Your task to perform on an android device: Turn on the flashlight Image 0: 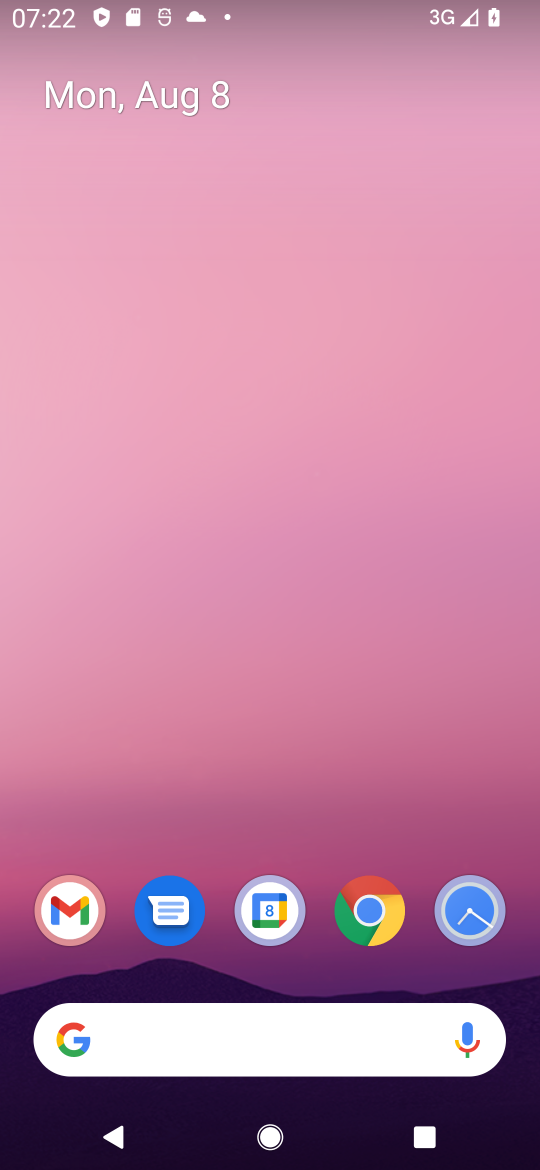
Step 0: drag from (239, 1052) to (300, 305)
Your task to perform on an android device: Turn on the flashlight Image 1: 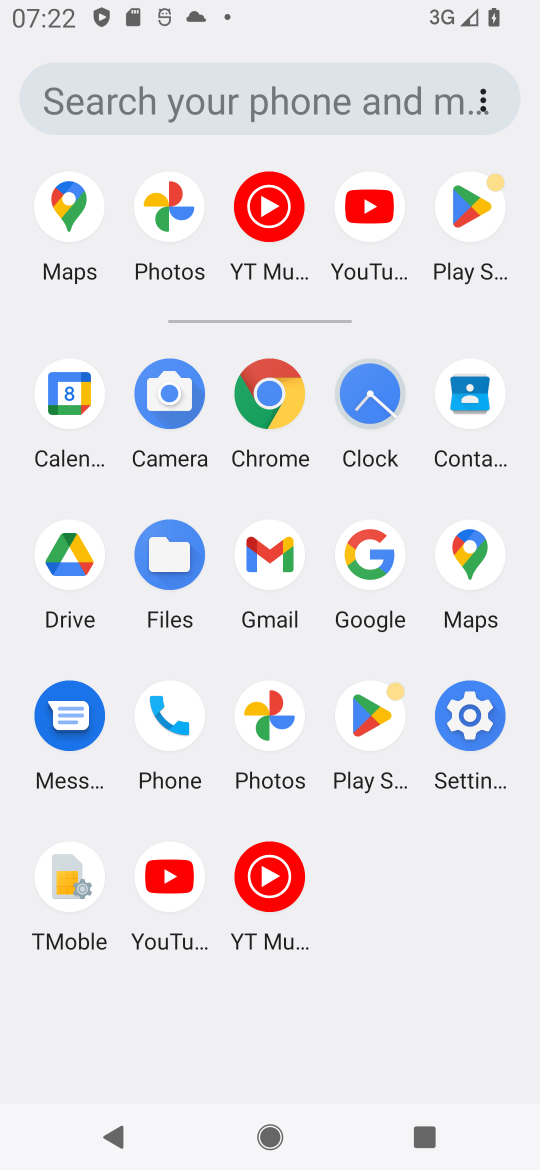
Step 1: click (471, 716)
Your task to perform on an android device: Turn on the flashlight Image 2: 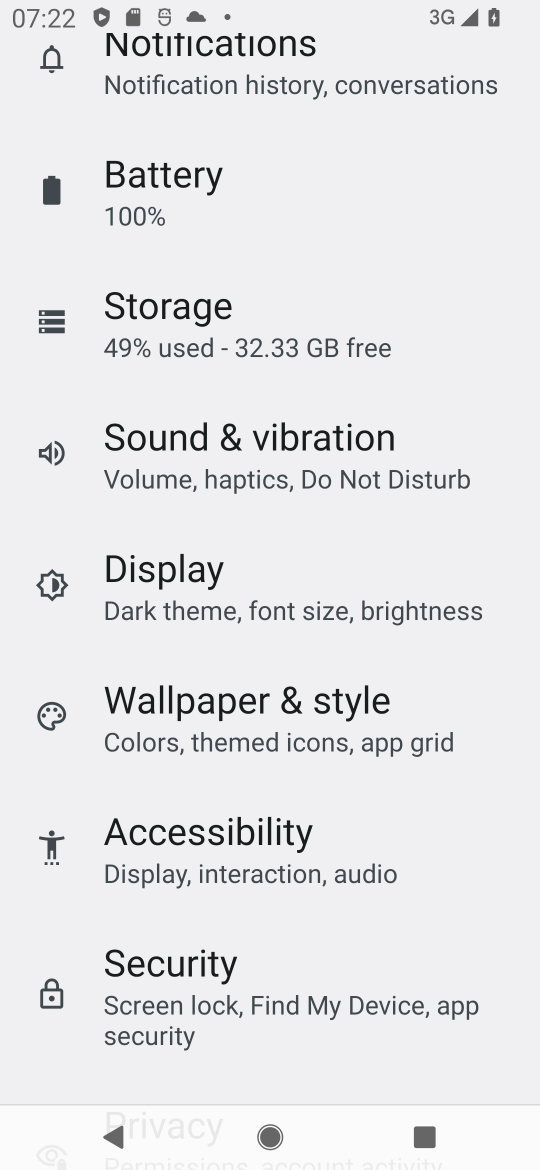
Step 2: drag from (236, 235) to (235, 460)
Your task to perform on an android device: Turn on the flashlight Image 3: 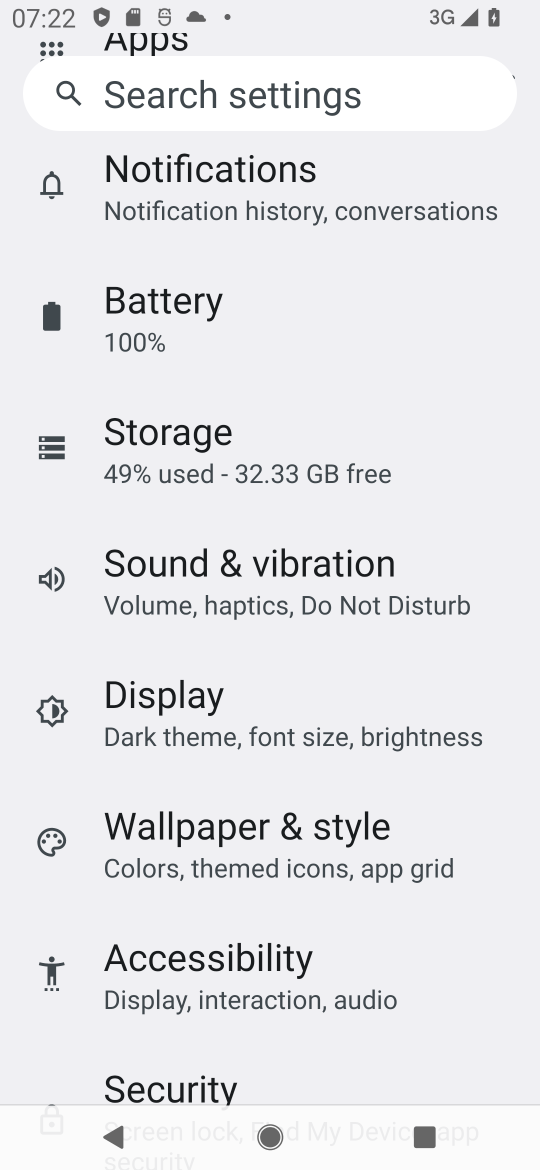
Step 3: drag from (312, 165) to (421, 510)
Your task to perform on an android device: Turn on the flashlight Image 4: 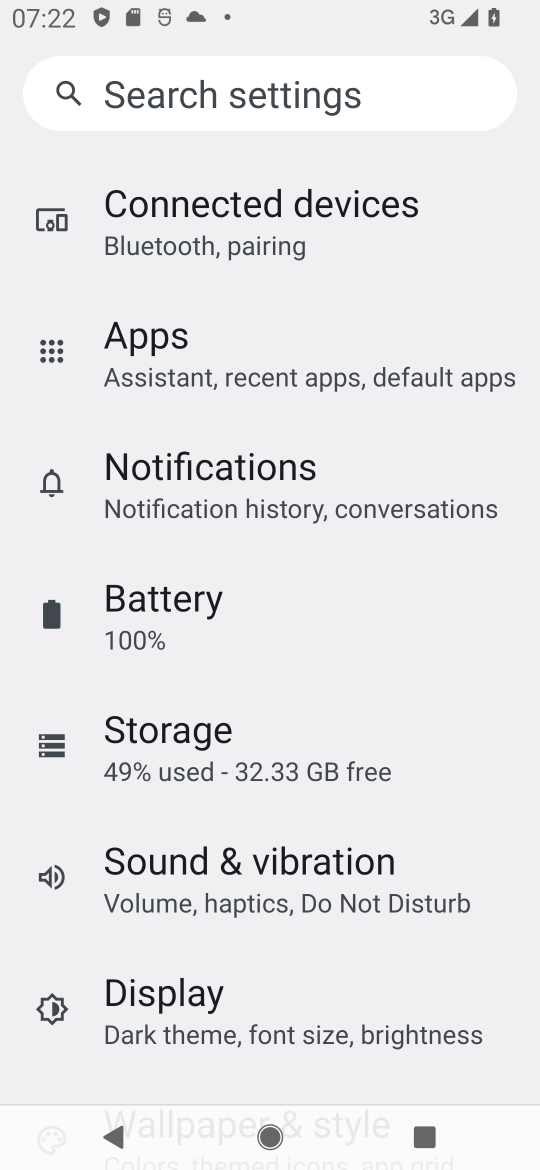
Step 4: drag from (353, 189) to (415, 526)
Your task to perform on an android device: Turn on the flashlight Image 5: 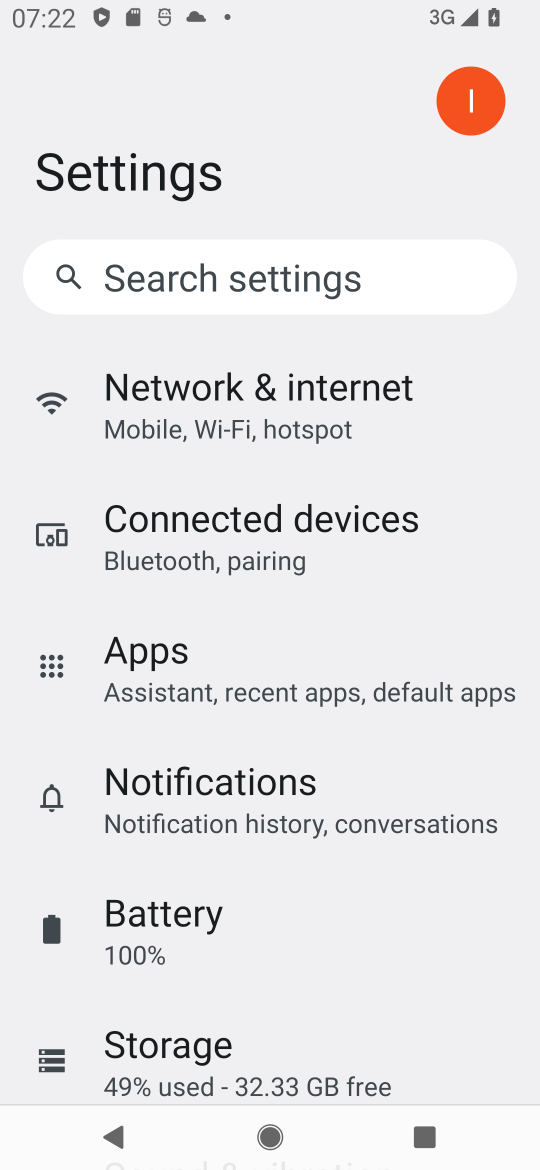
Step 5: drag from (382, 575) to (415, 510)
Your task to perform on an android device: Turn on the flashlight Image 6: 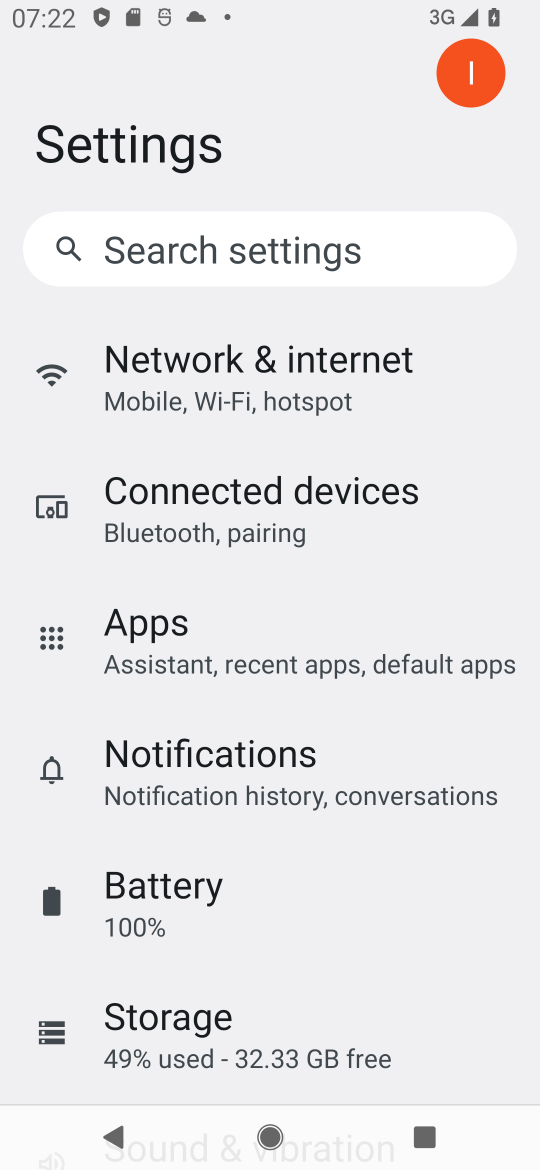
Step 6: drag from (277, 844) to (330, 575)
Your task to perform on an android device: Turn on the flashlight Image 7: 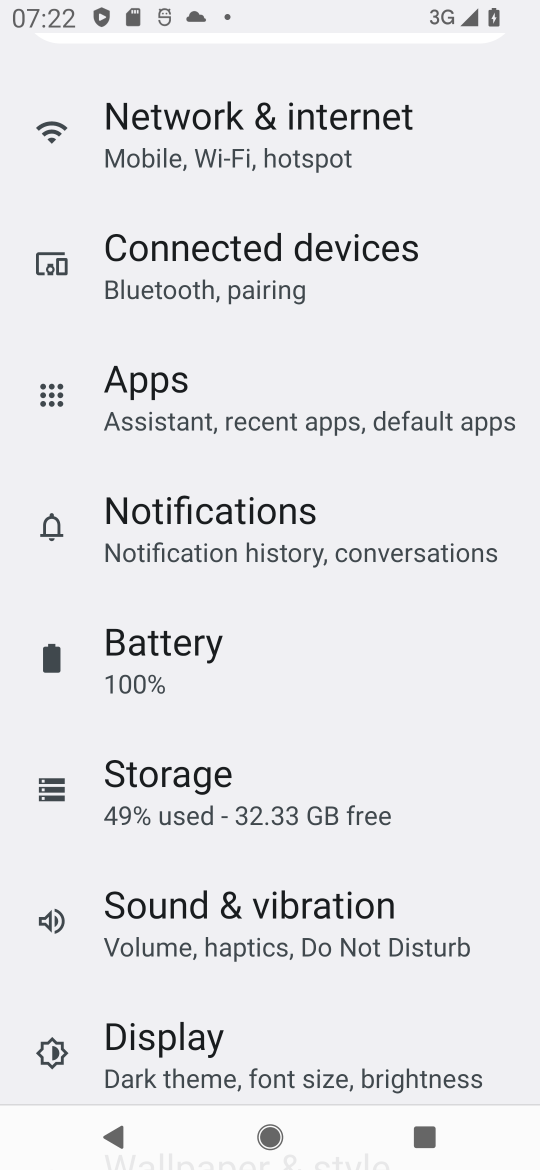
Step 7: drag from (257, 833) to (349, 648)
Your task to perform on an android device: Turn on the flashlight Image 8: 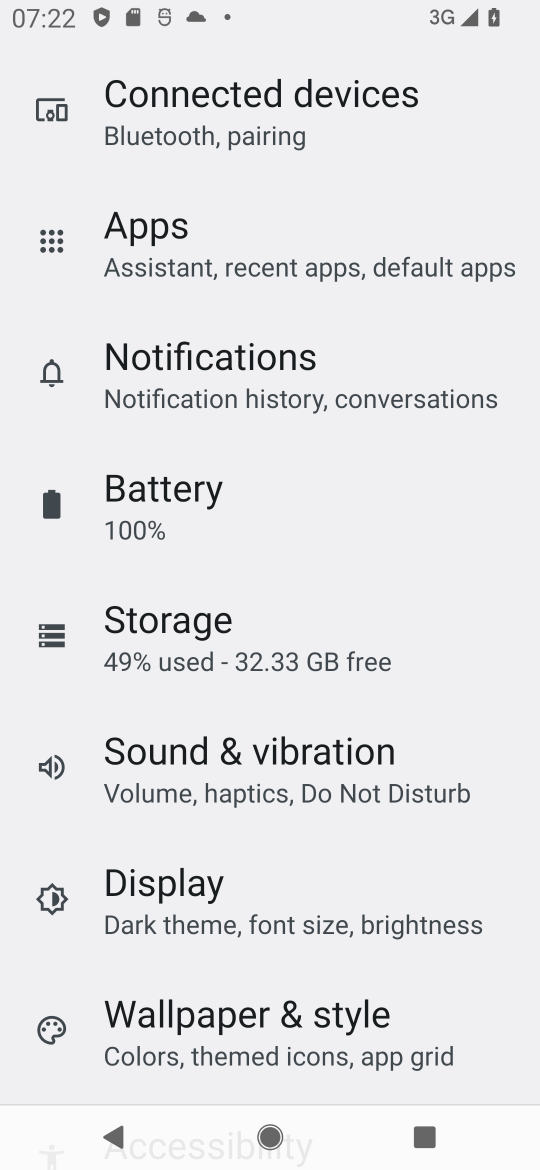
Step 8: click (134, 895)
Your task to perform on an android device: Turn on the flashlight Image 9: 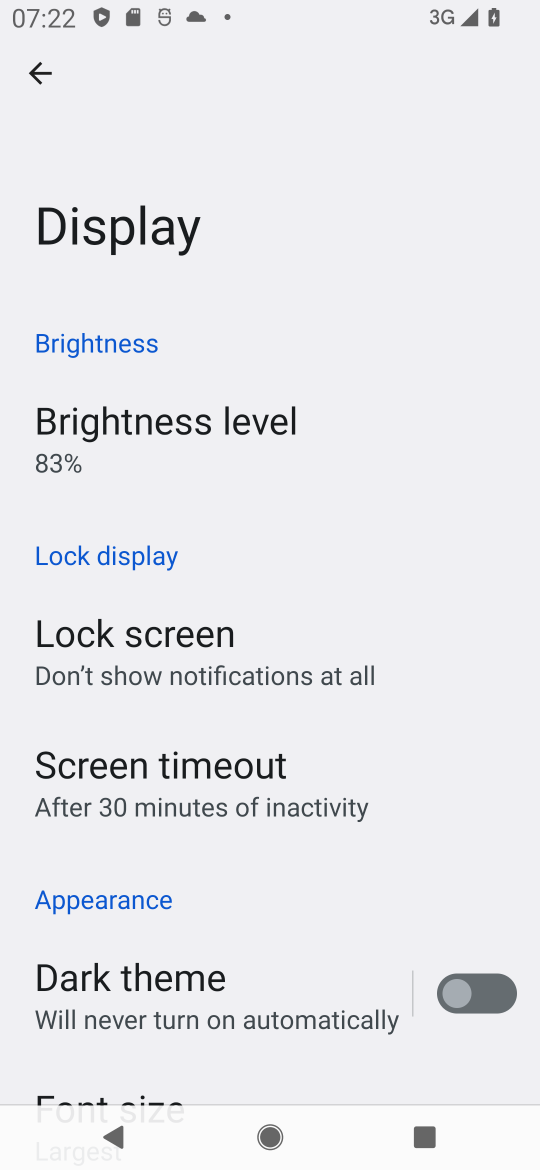
Step 9: click (179, 428)
Your task to perform on an android device: Turn on the flashlight Image 10: 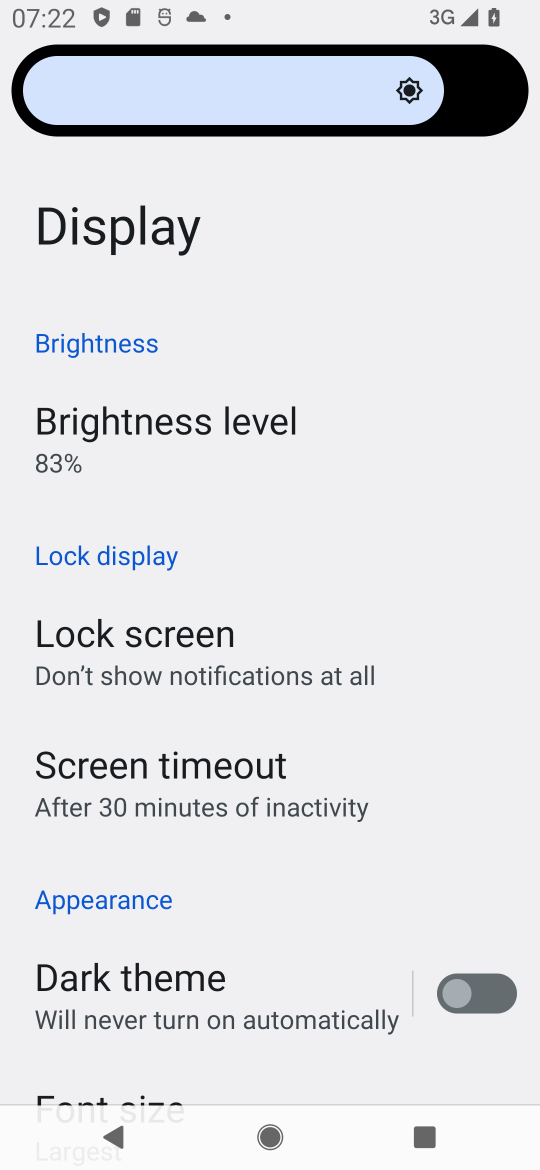
Step 10: click (133, 638)
Your task to perform on an android device: Turn on the flashlight Image 11: 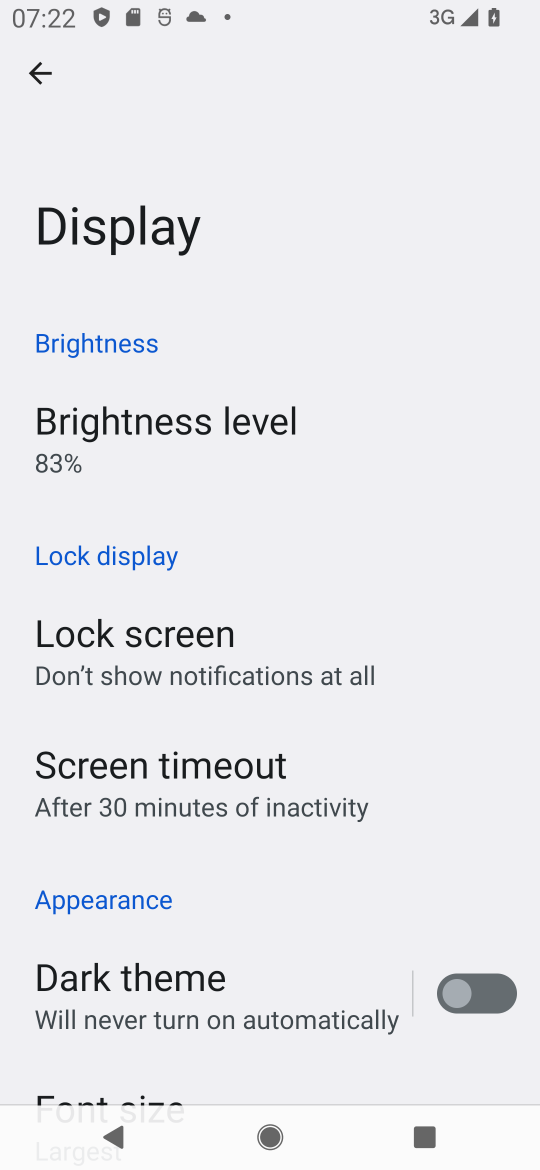
Step 11: drag from (150, 865) to (410, 461)
Your task to perform on an android device: Turn on the flashlight Image 12: 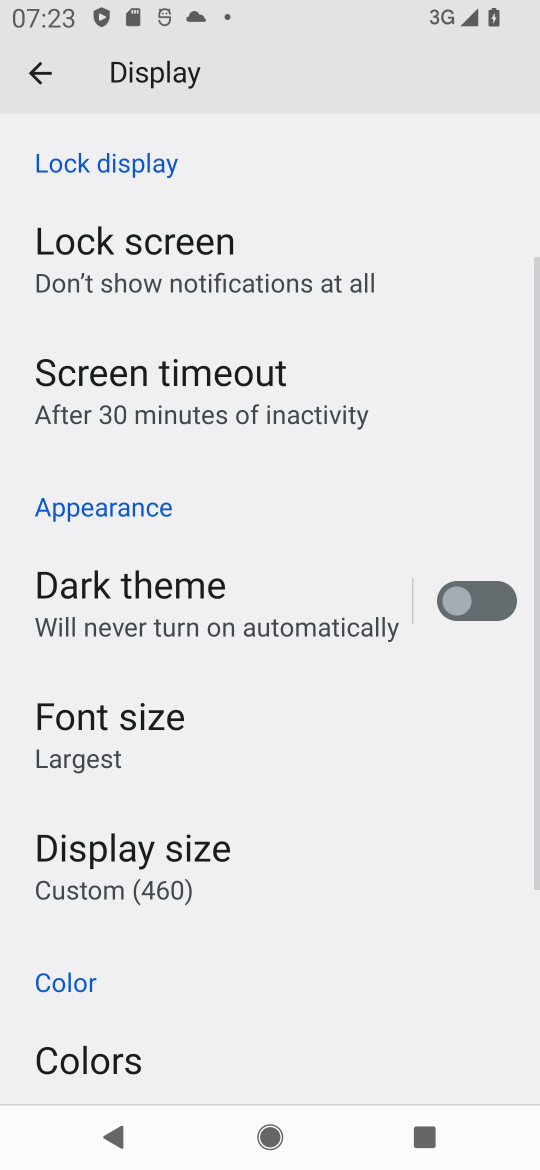
Step 12: drag from (275, 933) to (340, 630)
Your task to perform on an android device: Turn on the flashlight Image 13: 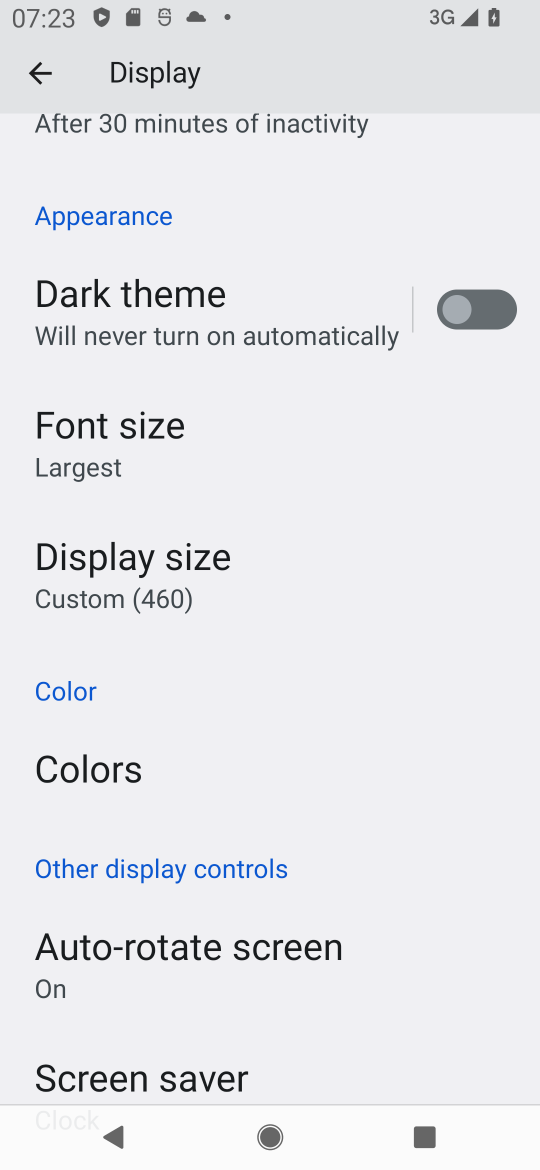
Step 13: drag from (283, 955) to (344, 775)
Your task to perform on an android device: Turn on the flashlight Image 14: 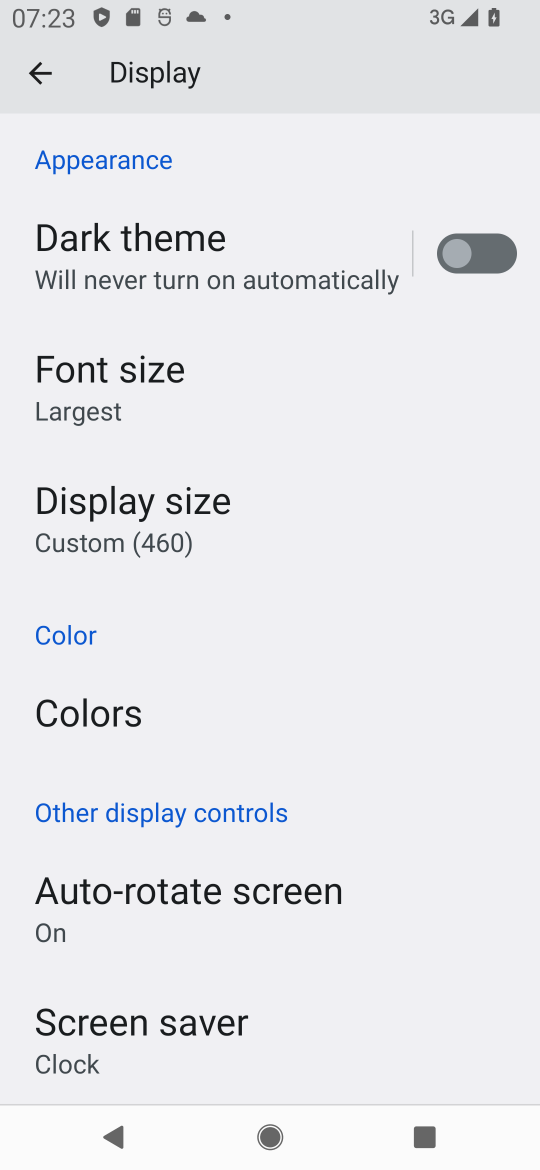
Step 14: click (113, 724)
Your task to perform on an android device: Turn on the flashlight Image 15: 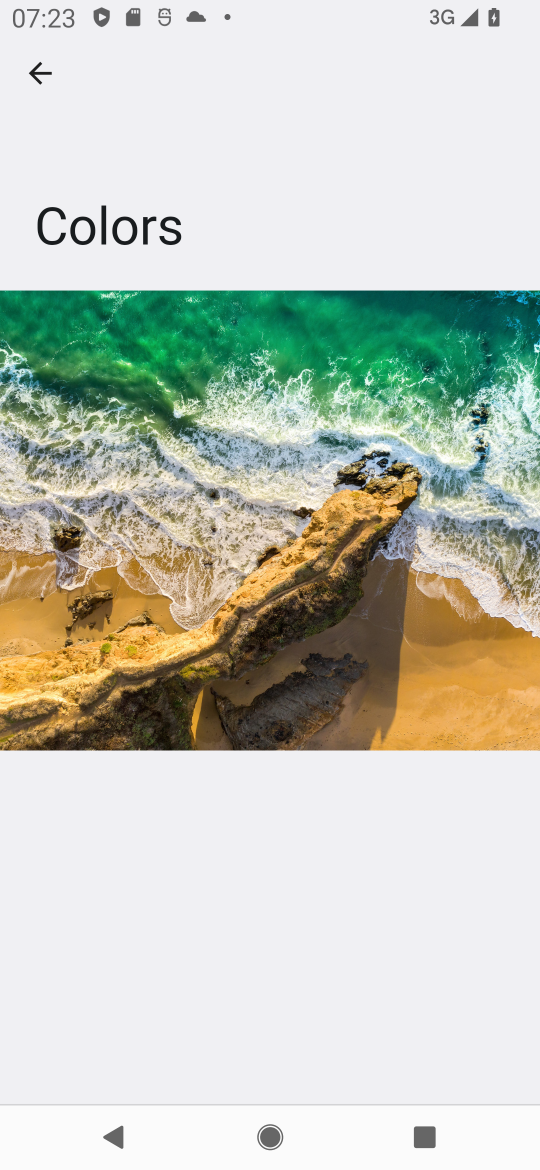
Step 15: press back button
Your task to perform on an android device: Turn on the flashlight Image 16: 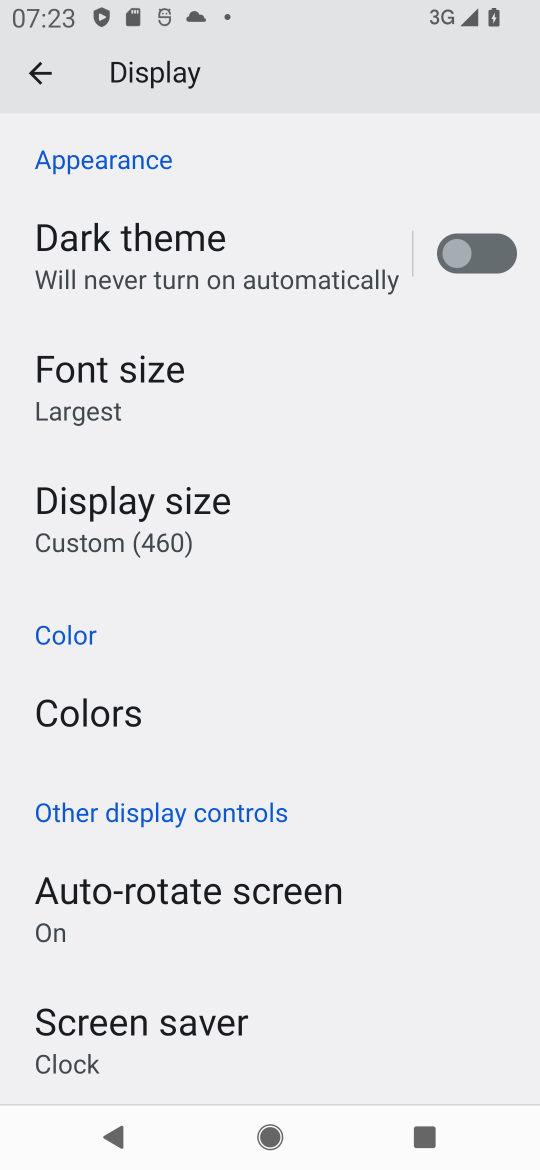
Step 16: click (191, 1033)
Your task to perform on an android device: Turn on the flashlight Image 17: 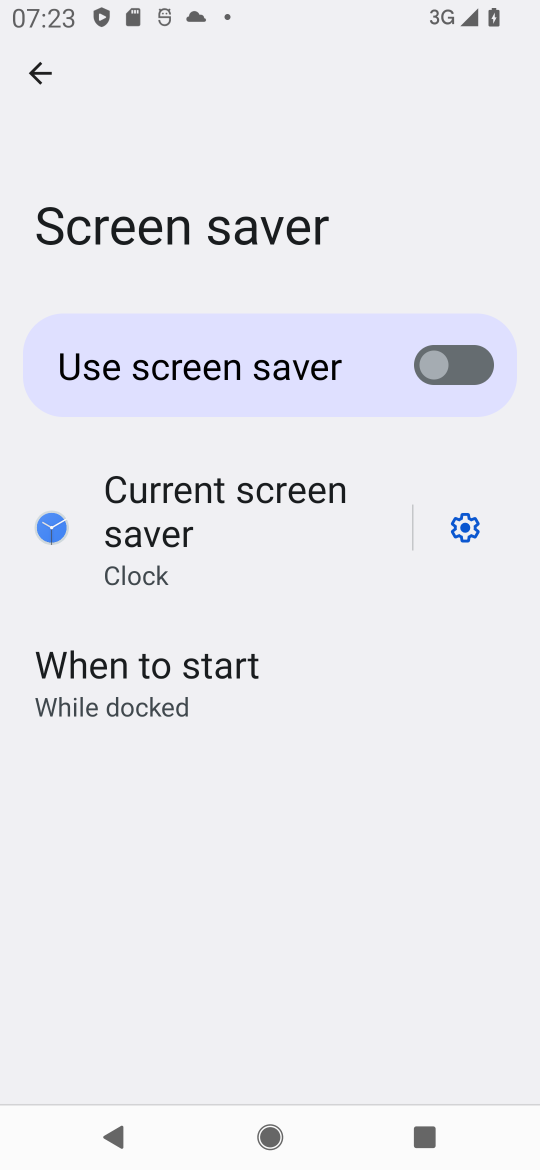
Step 17: click (185, 696)
Your task to perform on an android device: Turn on the flashlight Image 18: 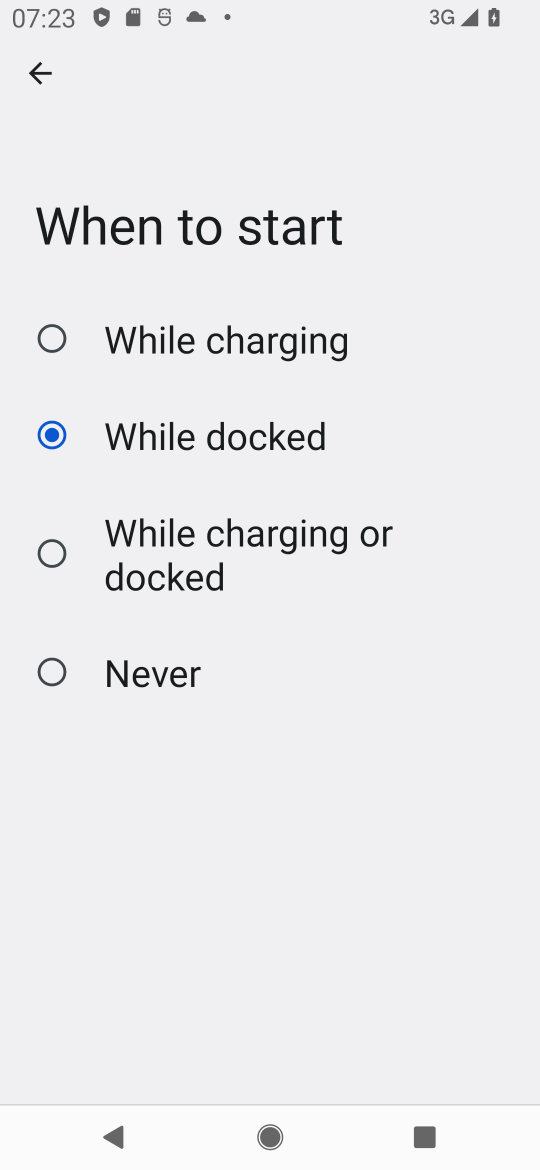
Step 18: press back button
Your task to perform on an android device: Turn on the flashlight Image 19: 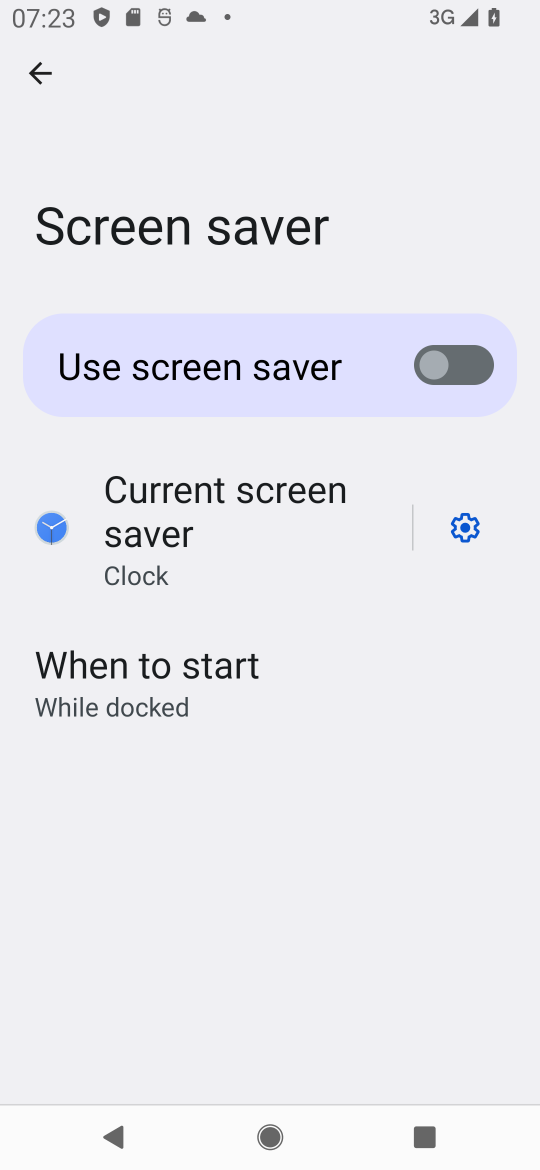
Step 19: click (38, 86)
Your task to perform on an android device: Turn on the flashlight Image 20: 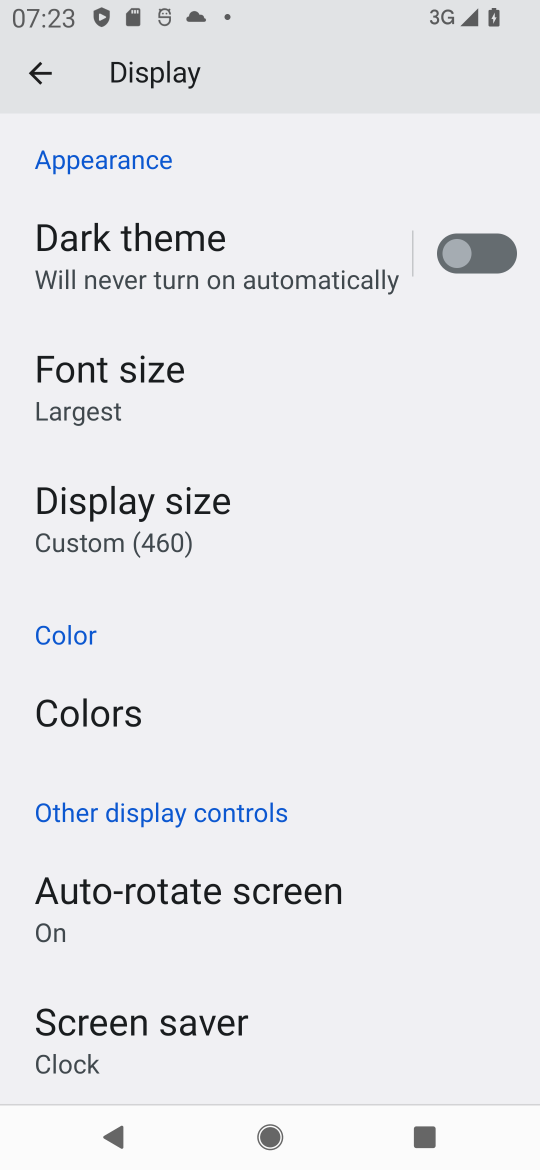
Step 20: press back button
Your task to perform on an android device: Turn on the flashlight Image 21: 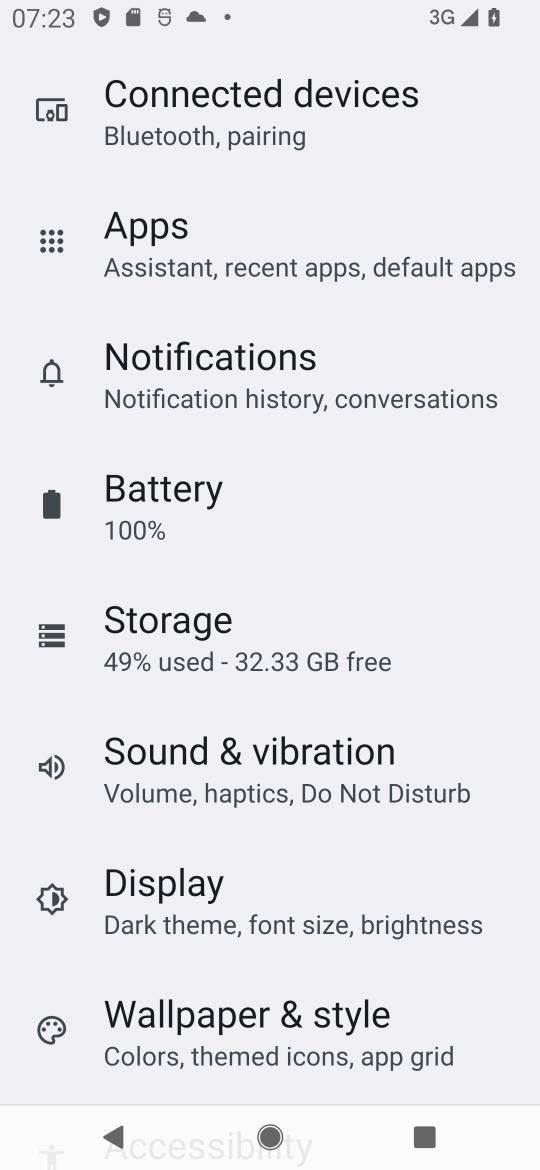
Step 21: drag from (310, 179) to (404, 779)
Your task to perform on an android device: Turn on the flashlight Image 22: 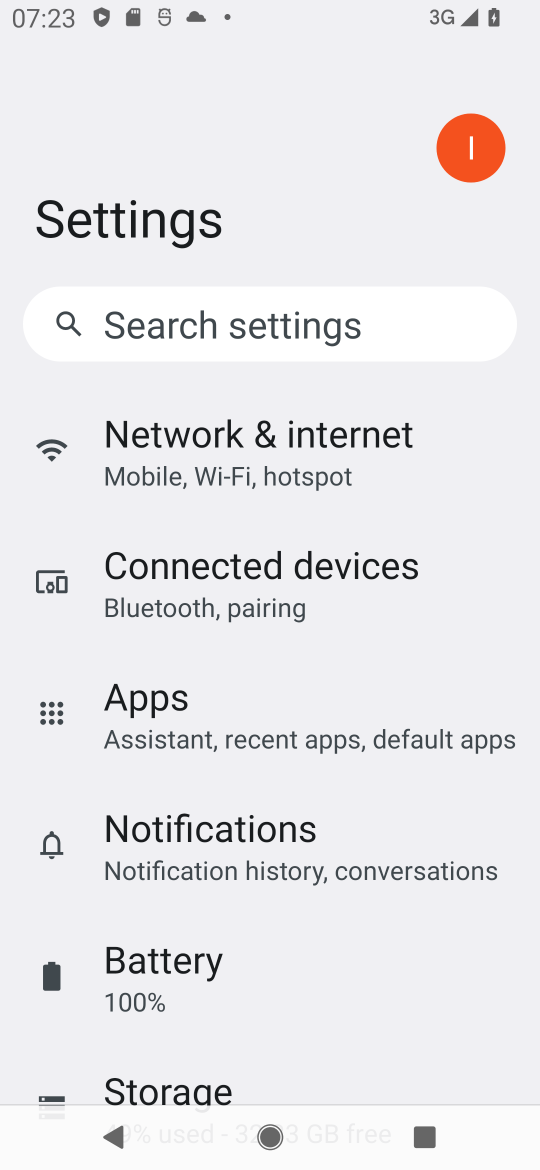
Step 22: click (280, 322)
Your task to perform on an android device: Turn on the flashlight Image 23: 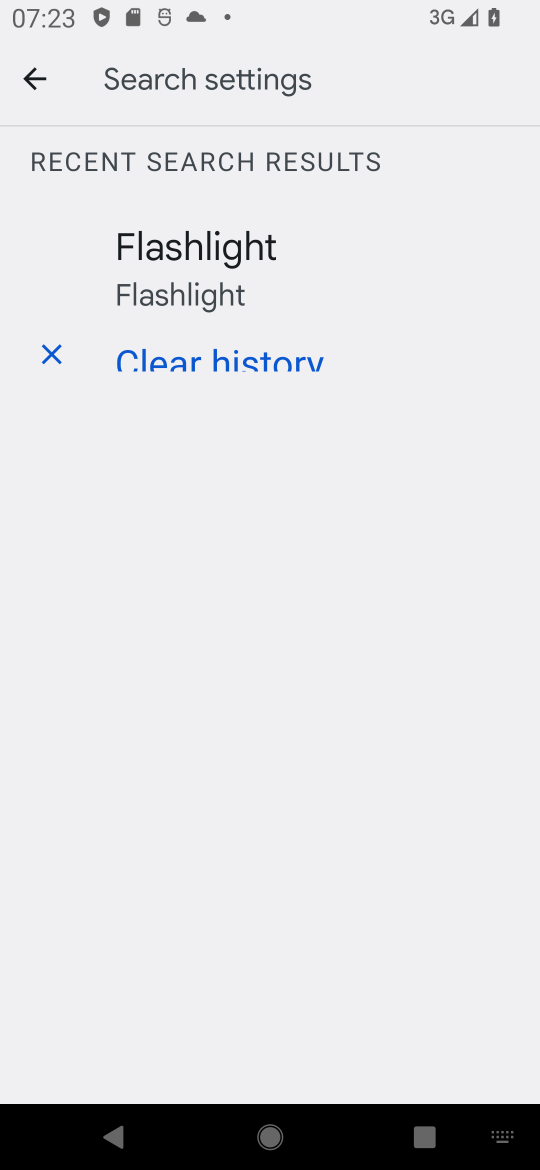
Step 23: click (251, 248)
Your task to perform on an android device: Turn on the flashlight Image 24: 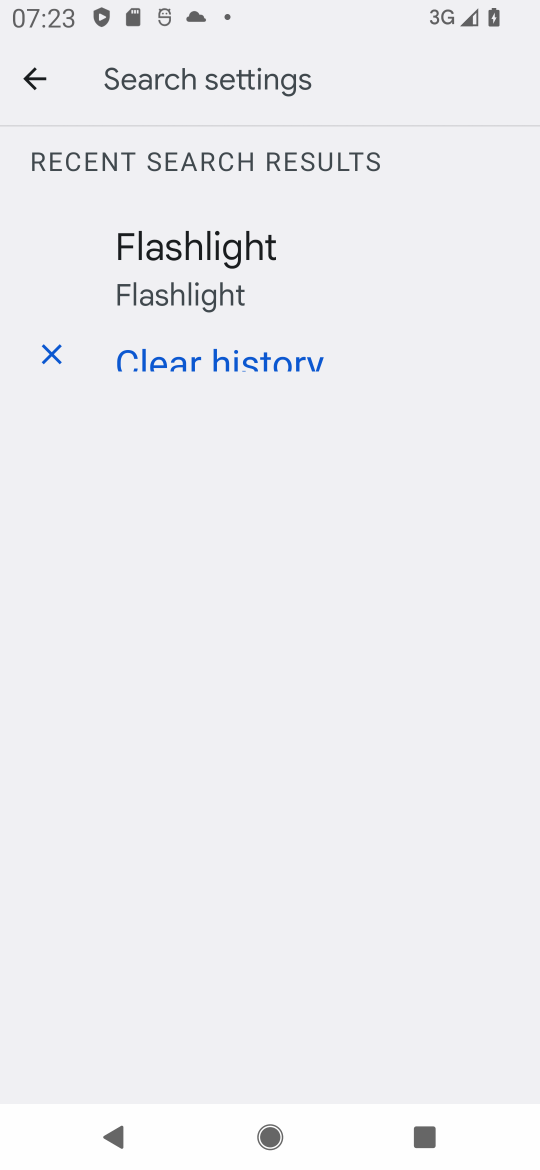
Step 24: click (251, 248)
Your task to perform on an android device: Turn on the flashlight Image 25: 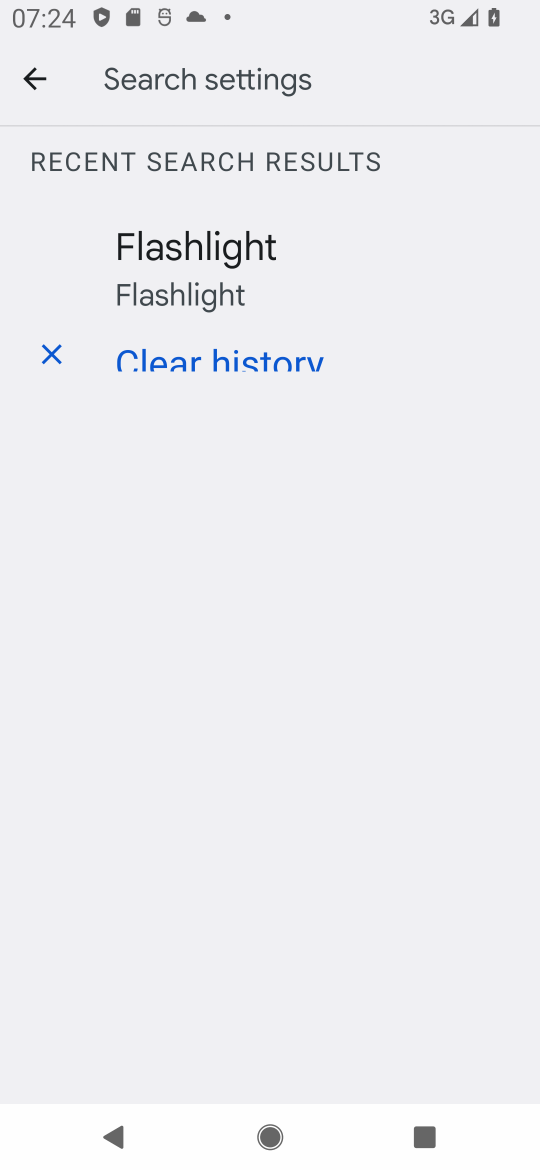
Step 25: task complete